Your task to perform on an android device: Go to privacy settings Image 0: 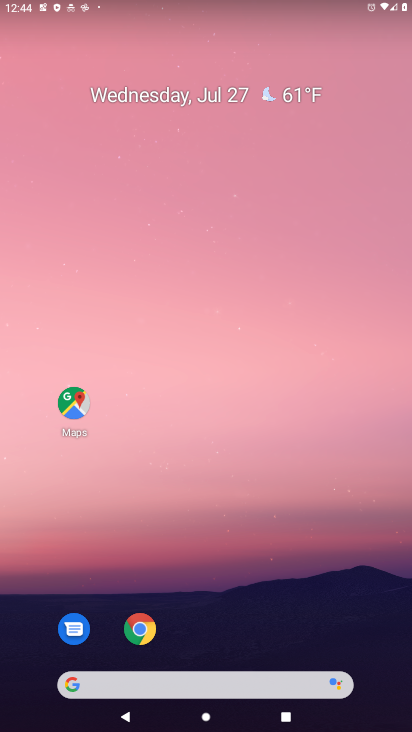
Step 0: drag from (289, 621) to (240, 2)
Your task to perform on an android device: Go to privacy settings Image 1: 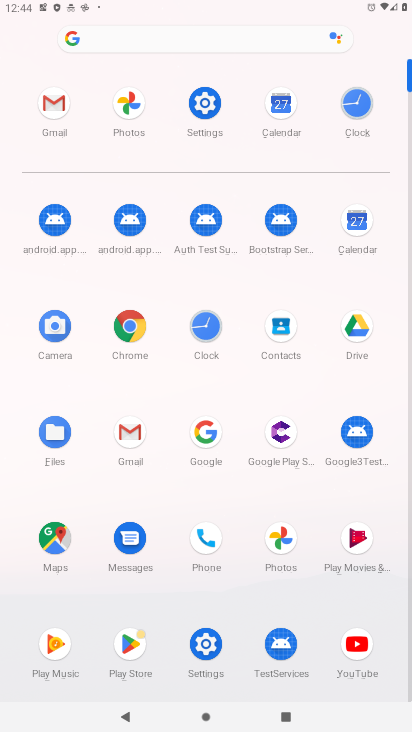
Step 1: click (212, 110)
Your task to perform on an android device: Go to privacy settings Image 2: 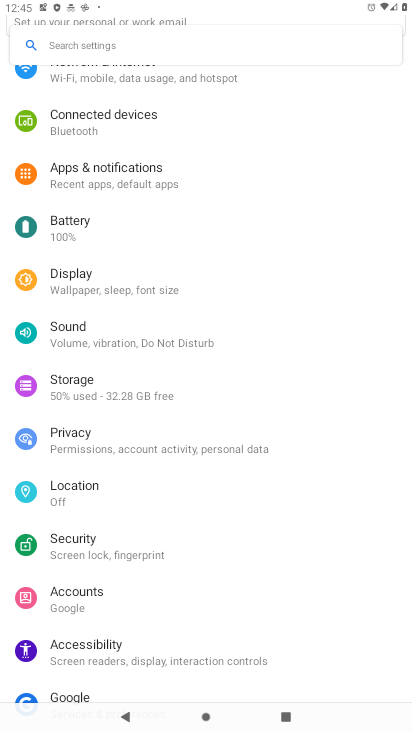
Step 2: click (143, 456)
Your task to perform on an android device: Go to privacy settings Image 3: 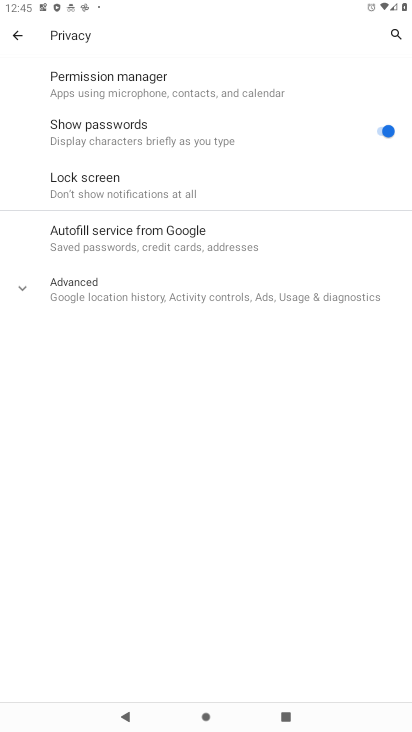
Step 3: task complete